Your task to perform on an android device: turn on location history Image 0: 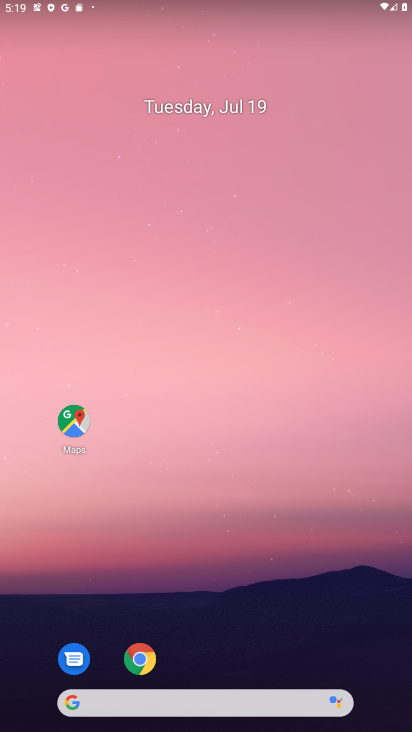
Step 0: drag from (278, 678) to (246, 159)
Your task to perform on an android device: turn on location history Image 1: 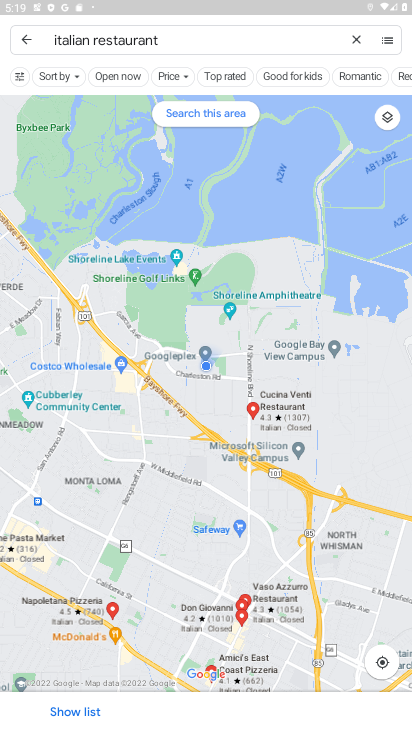
Step 1: press home button
Your task to perform on an android device: turn on location history Image 2: 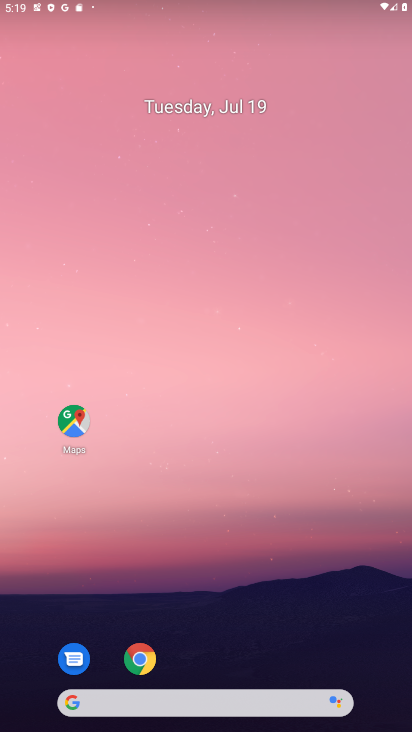
Step 2: press back button
Your task to perform on an android device: turn on location history Image 3: 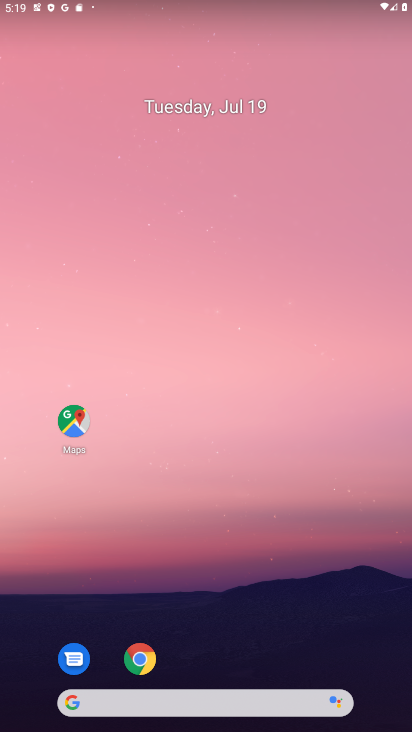
Step 3: click (224, 50)
Your task to perform on an android device: turn on location history Image 4: 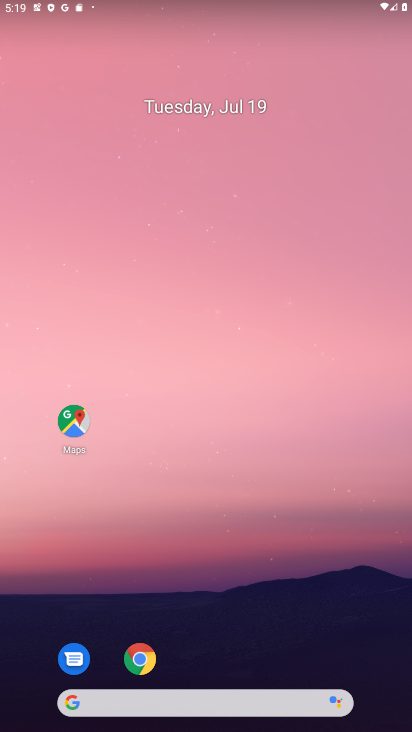
Step 4: drag from (215, 586) to (201, 253)
Your task to perform on an android device: turn on location history Image 5: 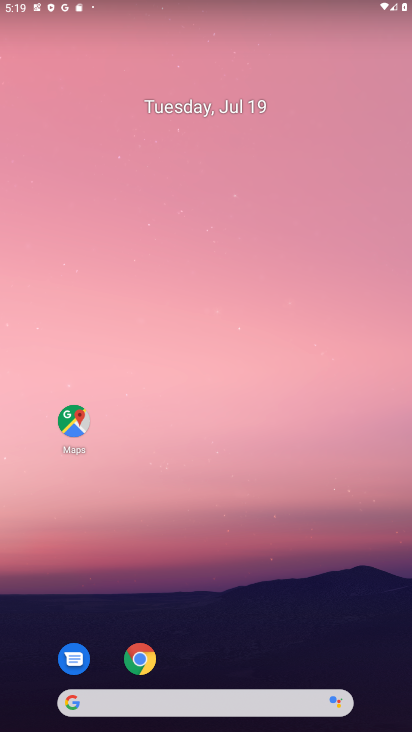
Step 5: drag from (213, 644) to (185, 148)
Your task to perform on an android device: turn on location history Image 6: 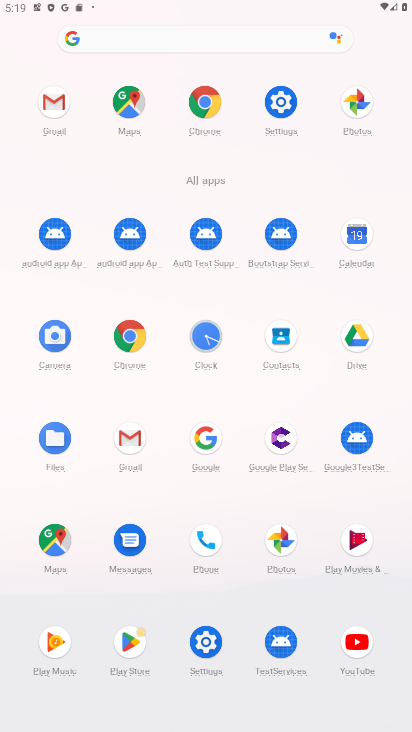
Step 6: drag from (190, 559) to (186, 13)
Your task to perform on an android device: turn on location history Image 7: 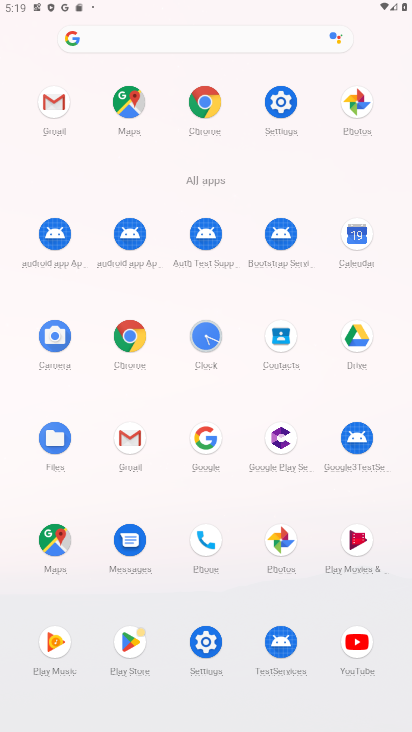
Step 7: click (289, 109)
Your task to perform on an android device: turn on location history Image 8: 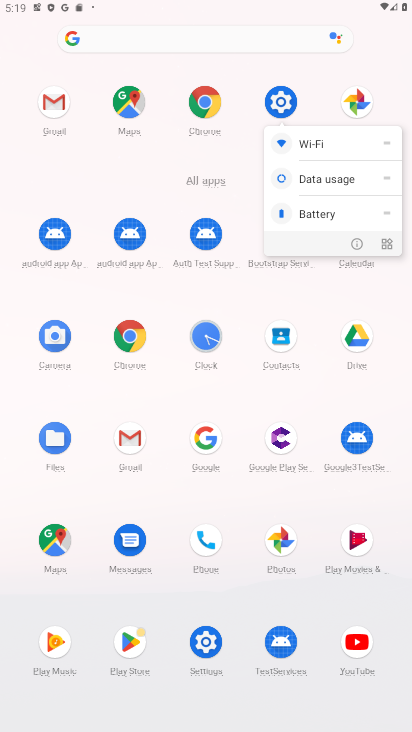
Step 8: click (275, 88)
Your task to perform on an android device: turn on location history Image 9: 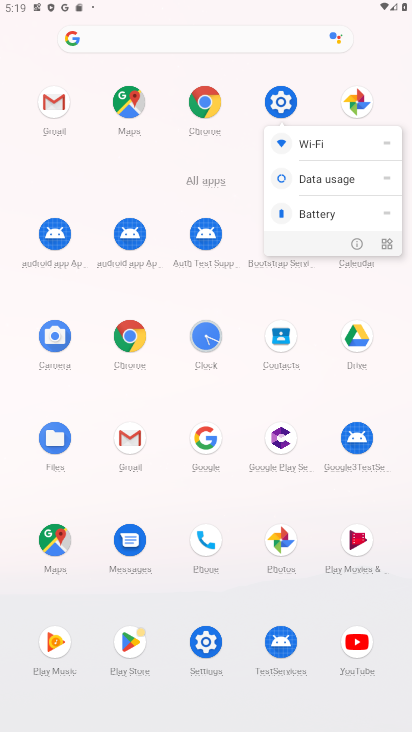
Step 9: click (274, 101)
Your task to perform on an android device: turn on location history Image 10: 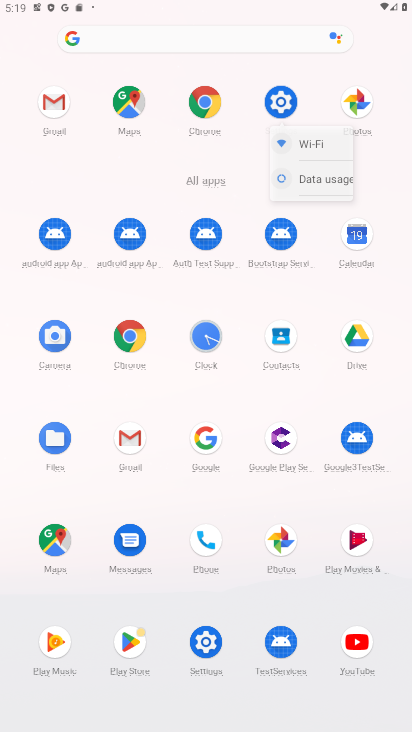
Step 10: click (279, 94)
Your task to perform on an android device: turn on location history Image 11: 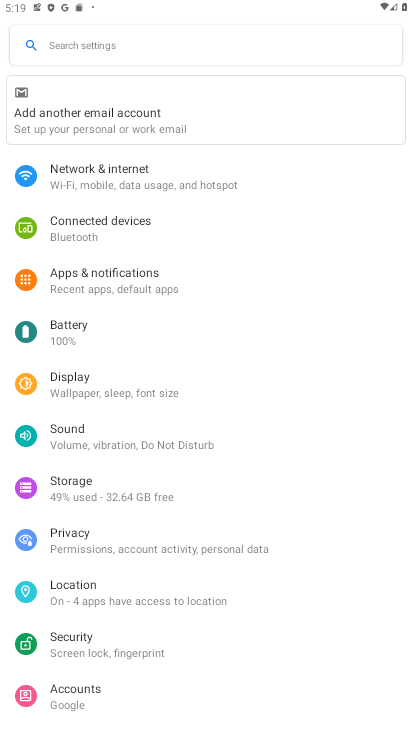
Step 11: drag from (114, 508) to (192, 205)
Your task to perform on an android device: turn on location history Image 12: 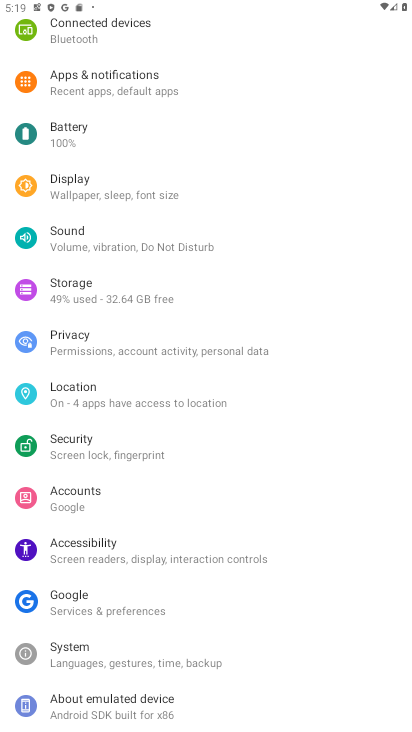
Step 12: click (75, 386)
Your task to perform on an android device: turn on location history Image 13: 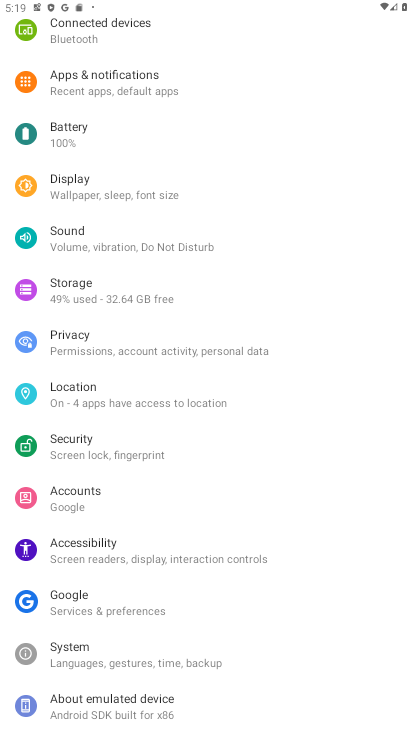
Step 13: click (75, 386)
Your task to perform on an android device: turn on location history Image 14: 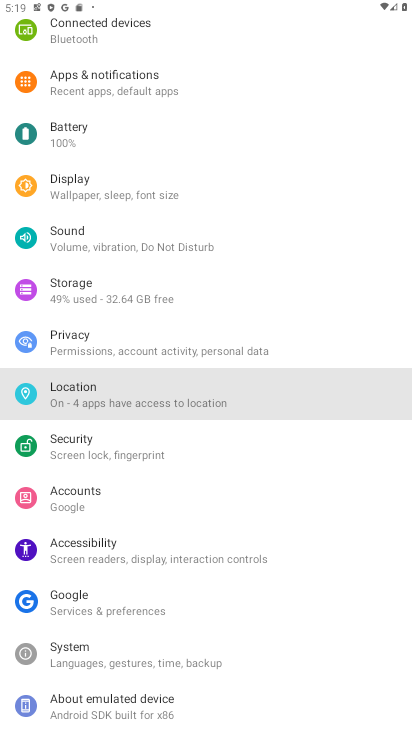
Step 14: click (74, 387)
Your task to perform on an android device: turn on location history Image 15: 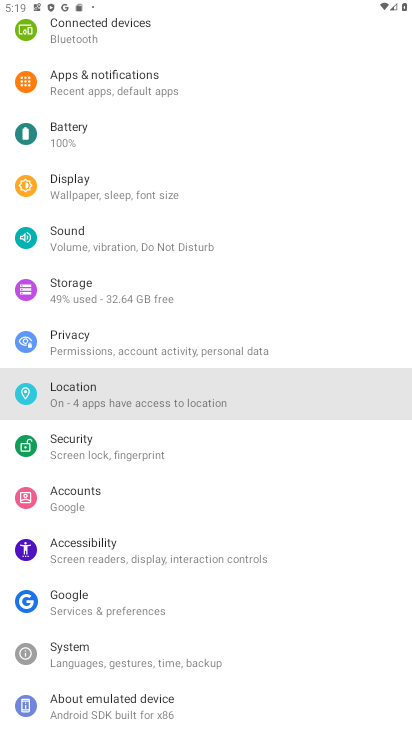
Step 15: click (74, 388)
Your task to perform on an android device: turn on location history Image 16: 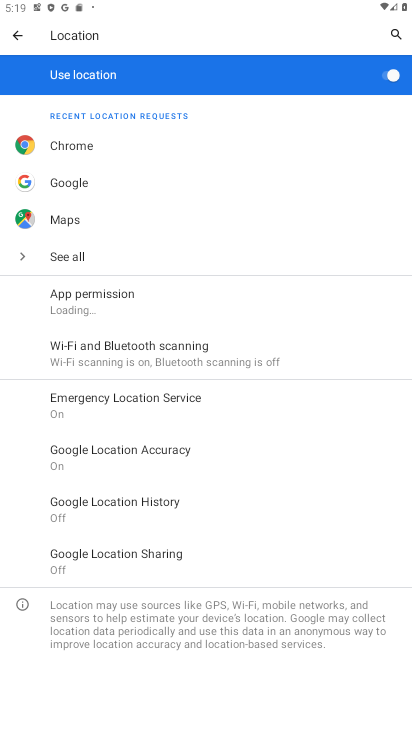
Step 16: click (149, 506)
Your task to perform on an android device: turn on location history Image 17: 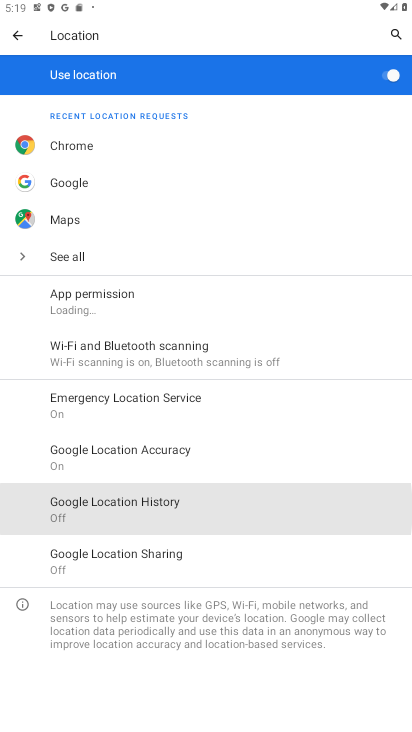
Step 17: click (149, 506)
Your task to perform on an android device: turn on location history Image 18: 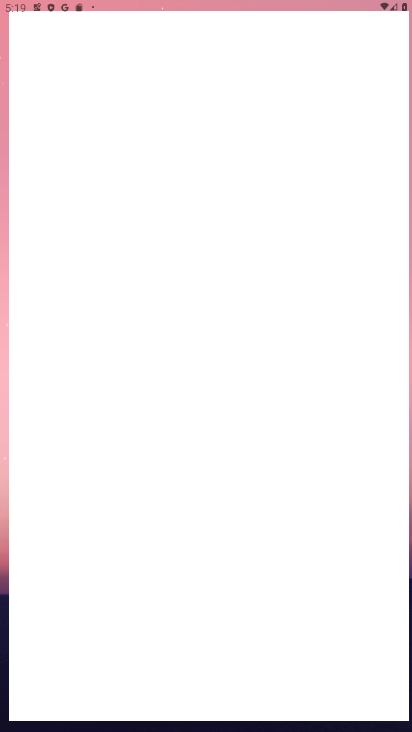
Step 18: click (149, 506)
Your task to perform on an android device: turn on location history Image 19: 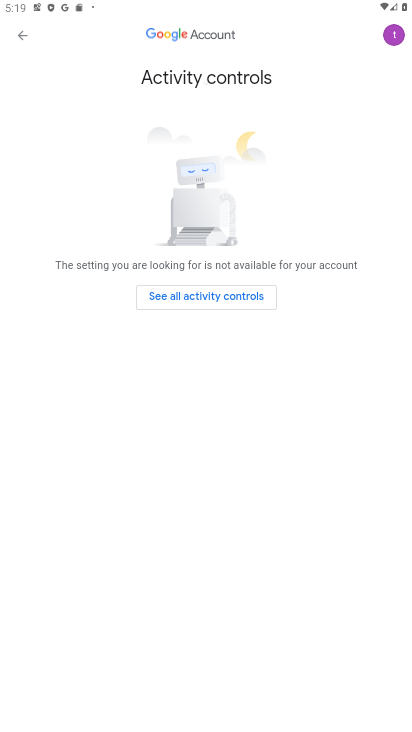
Step 19: click (199, 293)
Your task to perform on an android device: turn on location history Image 20: 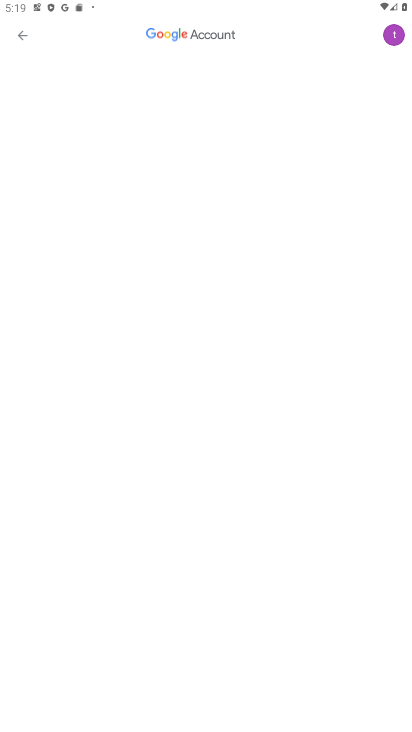
Step 20: click (198, 292)
Your task to perform on an android device: turn on location history Image 21: 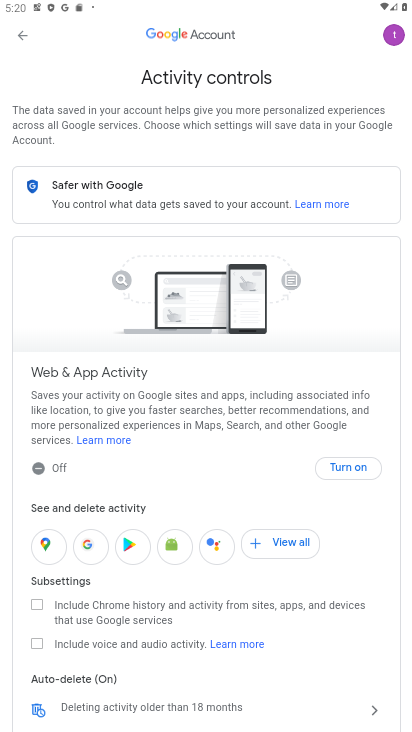
Step 21: click (339, 467)
Your task to perform on an android device: turn on location history Image 22: 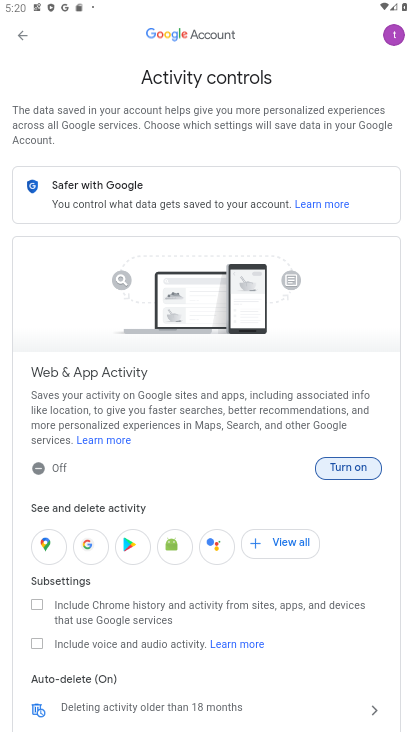
Step 22: click (339, 467)
Your task to perform on an android device: turn on location history Image 23: 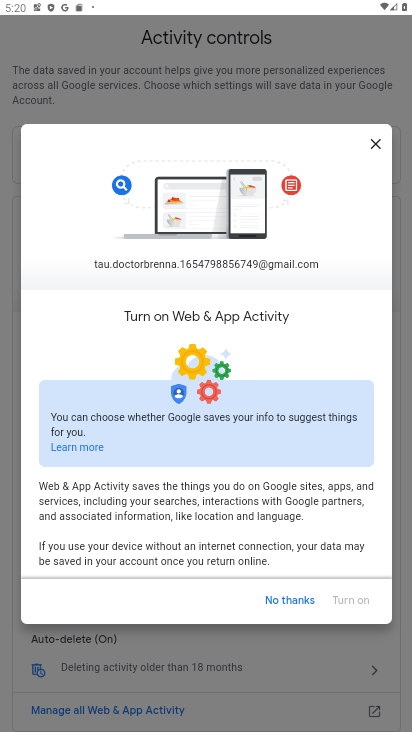
Step 23: task complete